Your task to perform on an android device: Open the web browser Image 0: 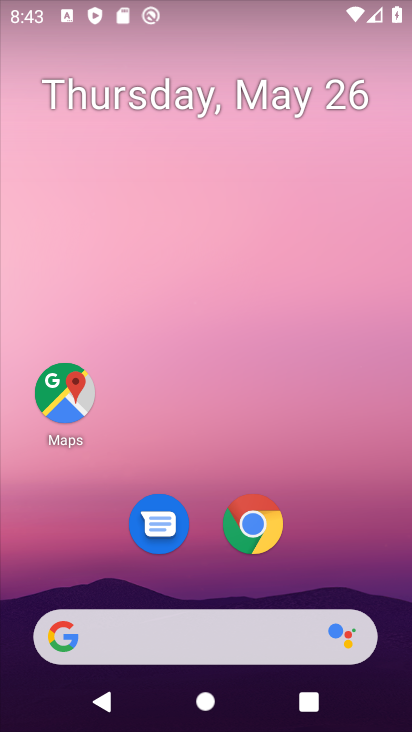
Step 0: click (257, 642)
Your task to perform on an android device: Open the web browser Image 1: 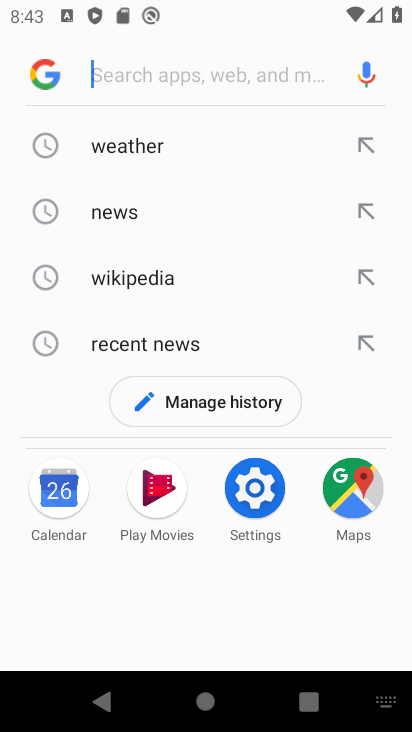
Step 1: task complete